Your task to perform on an android device: Search for the best deal on a 3d printer on aliexpress Image 0: 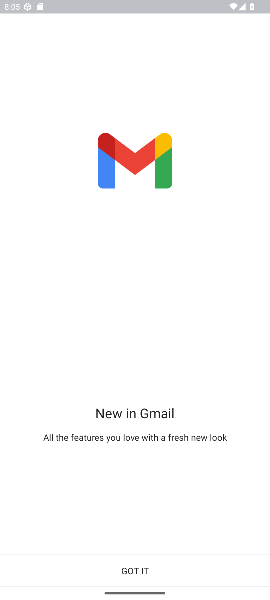
Step 0: press home button
Your task to perform on an android device: Search for the best deal on a 3d printer on aliexpress Image 1: 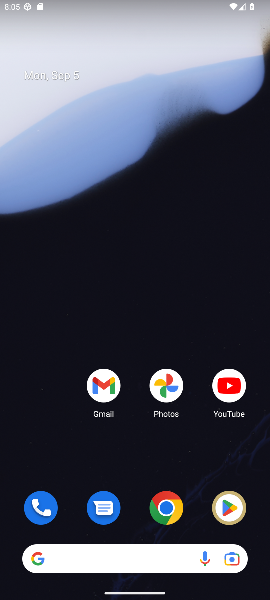
Step 1: click (157, 511)
Your task to perform on an android device: Search for the best deal on a 3d printer on aliexpress Image 2: 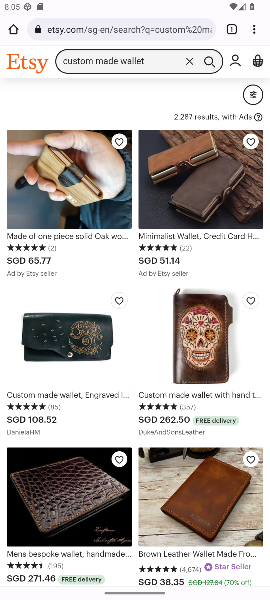
Step 2: click (159, 31)
Your task to perform on an android device: Search for the best deal on a 3d printer on aliexpress Image 3: 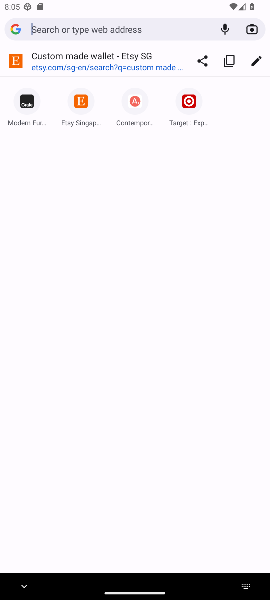
Step 3: type "aliexpress"
Your task to perform on an android device: Search for the best deal on a 3d printer on aliexpress Image 4: 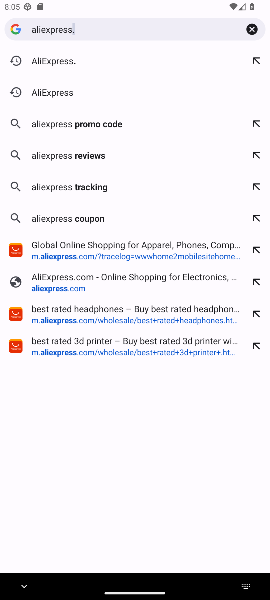
Step 4: click (58, 97)
Your task to perform on an android device: Search for the best deal on a 3d printer on aliexpress Image 5: 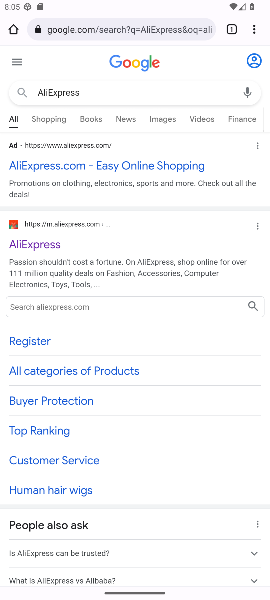
Step 5: click (39, 247)
Your task to perform on an android device: Search for the best deal on a 3d printer on aliexpress Image 6: 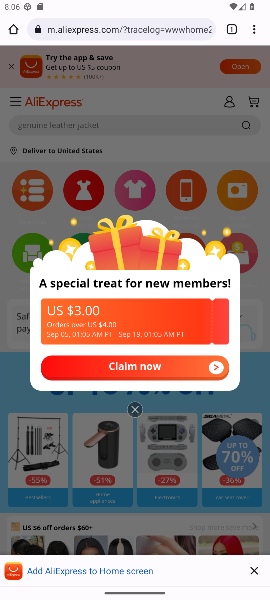
Step 6: click (131, 411)
Your task to perform on an android device: Search for the best deal on a 3d printer on aliexpress Image 7: 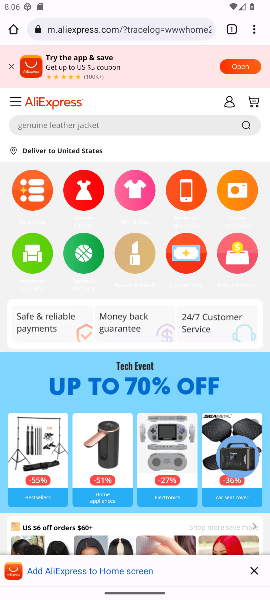
Step 7: click (113, 125)
Your task to perform on an android device: Search for the best deal on a 3d printer on aliexpress Image 8: 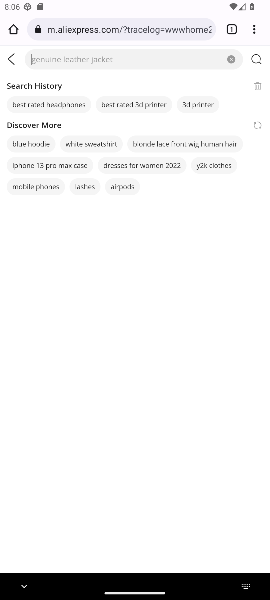
Step 8: type " best deal on a 3d printer"
Your task to perform on an android device: Search for the best deal on a 3d printer on aliexpress Image 9: 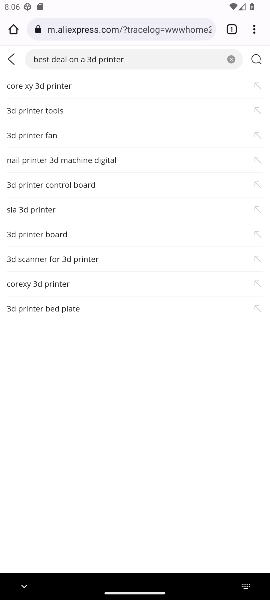
Step 9: click (257, 59)
Your task to perform on an android device: Search for the best deal on a 3d printer on aliexpress Image 10: 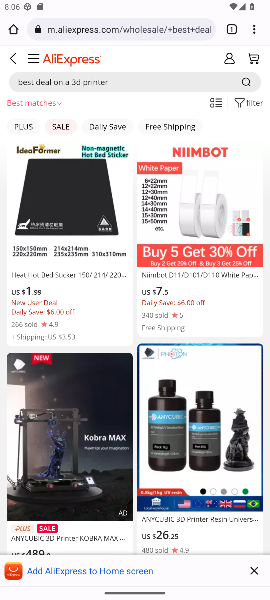
Step 10: task complete